Your task to perform on an android device: toggle translation in the chrome app Image 0: 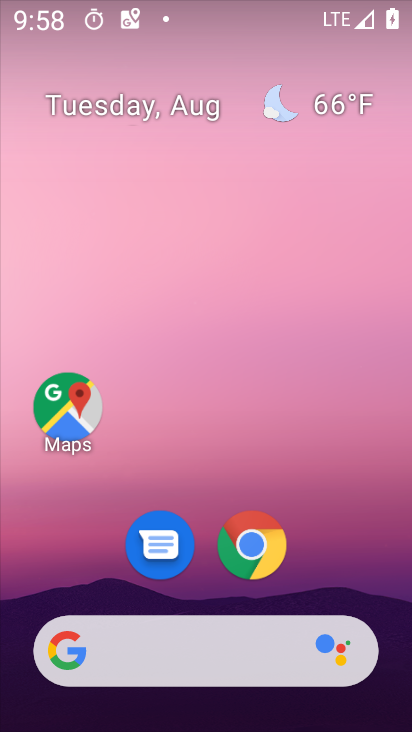
Step 0: drag from (199, 631) to (291, 59)
Your task to perform on an android device: toggle translation in the chrome app Image 1: 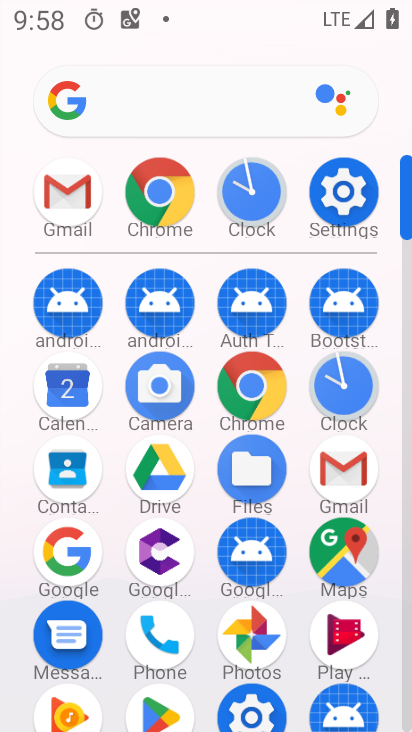
Step 1: click (262, 404)
Your task to perform on an android device: toggle translation in the chrome app Image 2: 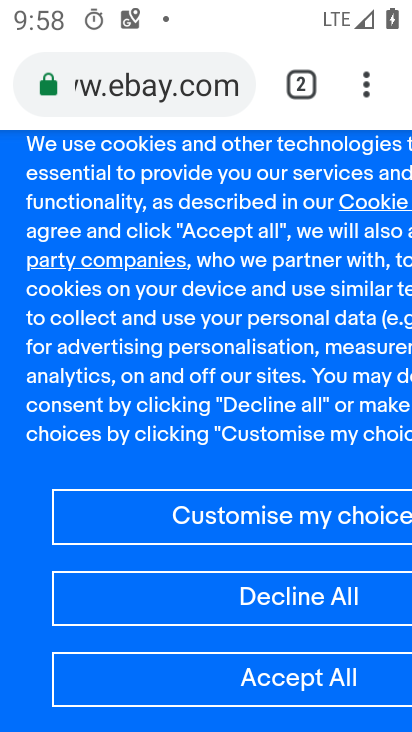
Step 2: click (373, 92)
Your task to perform on an android device: toggle translation in the chrome app Image 3: 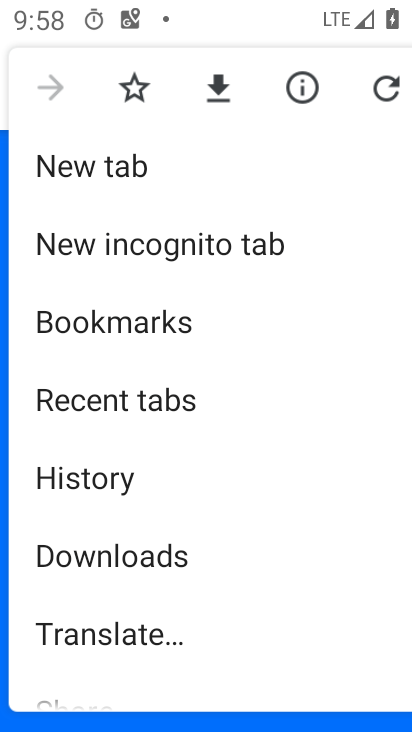
Step 3: drag from (184, 473) to (230, 182)
Your task to perform on an android device: toggle translation in the chrome app Image 4: 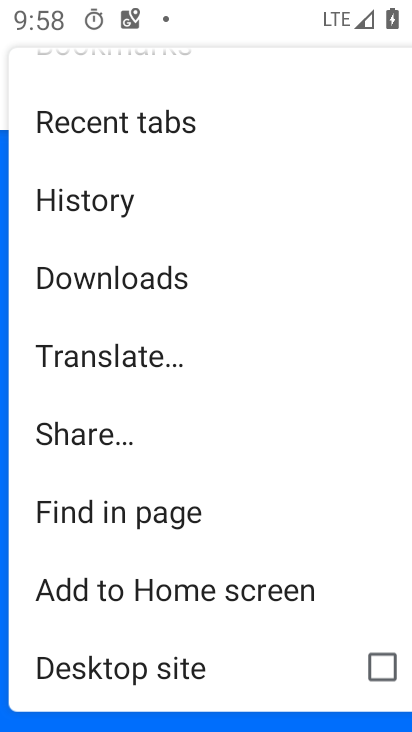
Step 4: drag from (162, 521) to (216, 271)
Your task to perform on an android device: toggle translation in the chrome app Image 5: 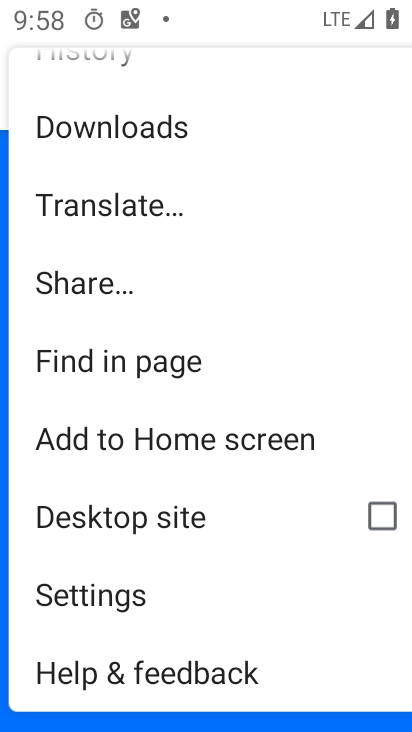
Step 5: click (135, 203)
Your task to perform on an android device: toggle translation in the chrome app Image 6: 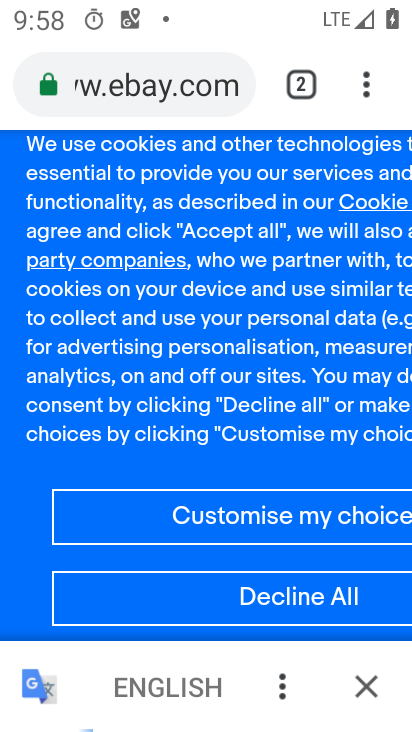
Step 6: click (274, 683)
Your task to perform on an android device: toggle translation in the chrome app Image 7: 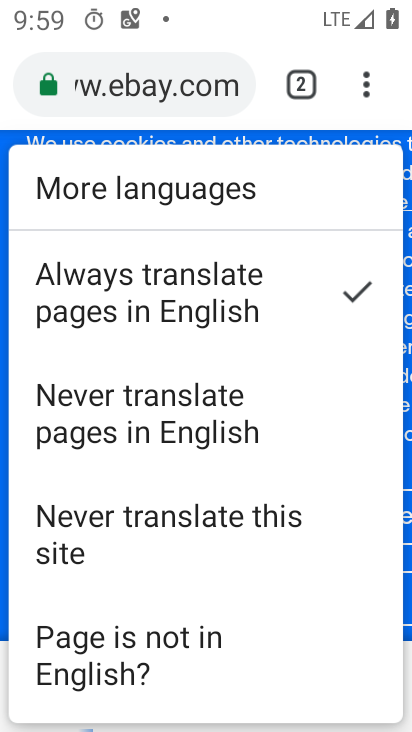
Step 7: click (207, 538)
Your task to perform on an android device: toggle translation in the chrome app Image 8: 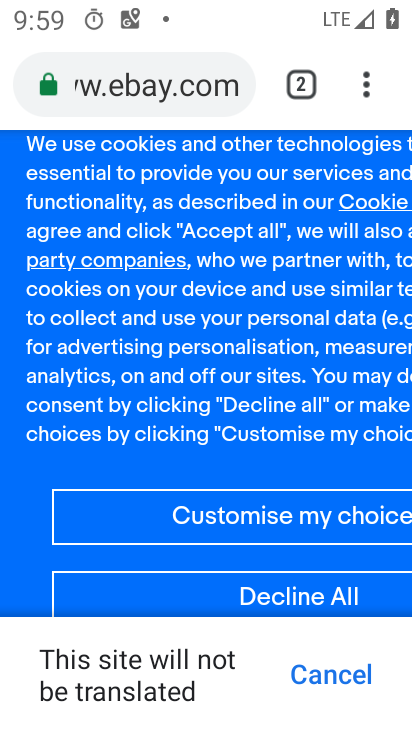
Step 8: task complete